Your task to perform on an android device: turn on translation in the chrome app Image 0: 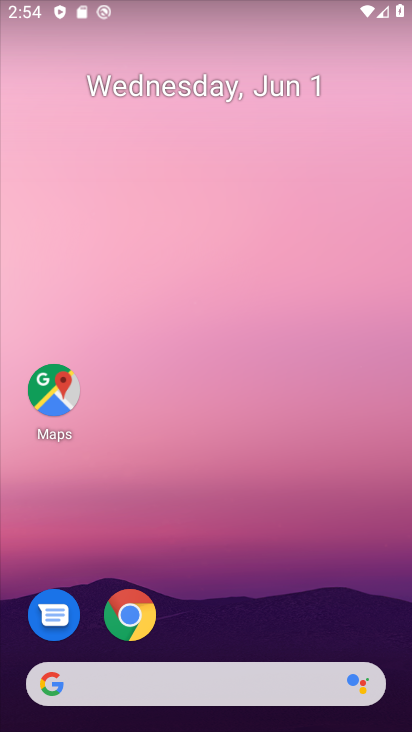
Step 0: drag from (295, 637) to (319, 27)
Your task to perform on an android device: turn on translation in the chrome app Image 1: 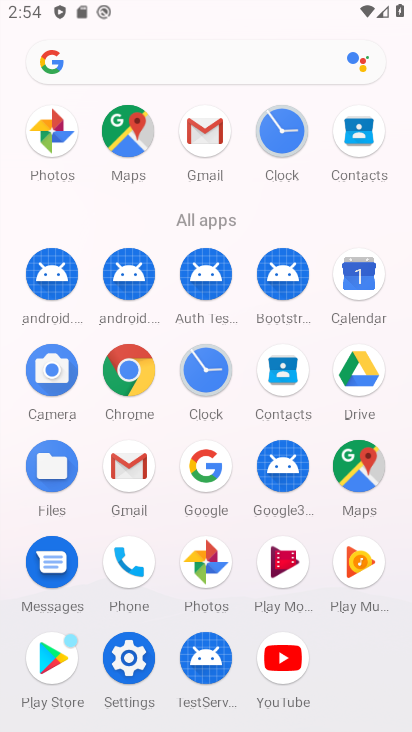
Step 1: click (135, 371)
Your task to perform on an android device: turn on translation in the chrome app Image 2: 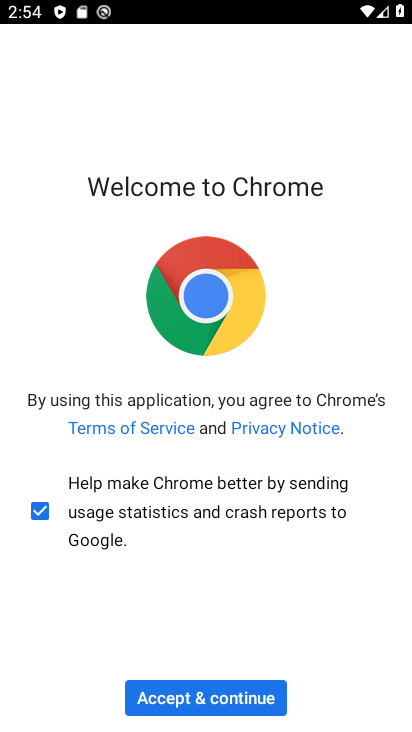
Step 2: click (217, 707)
Your task to perform on an android device: turn on translation in the chrome app Image 3: 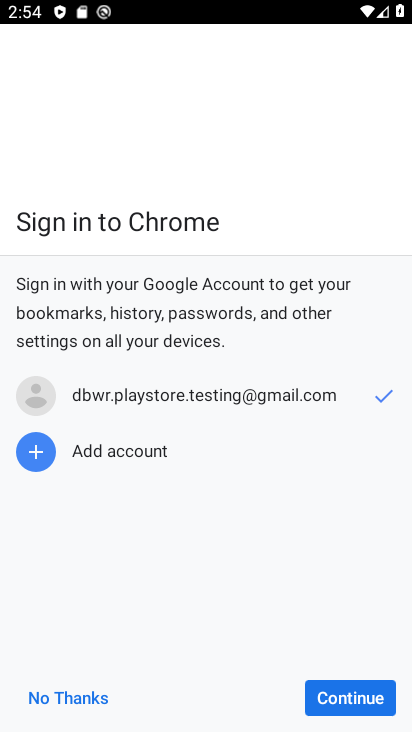
Step 3: click (86, 696)
Your task to perform on an android device: turn on translation in the chrome app Image 4: 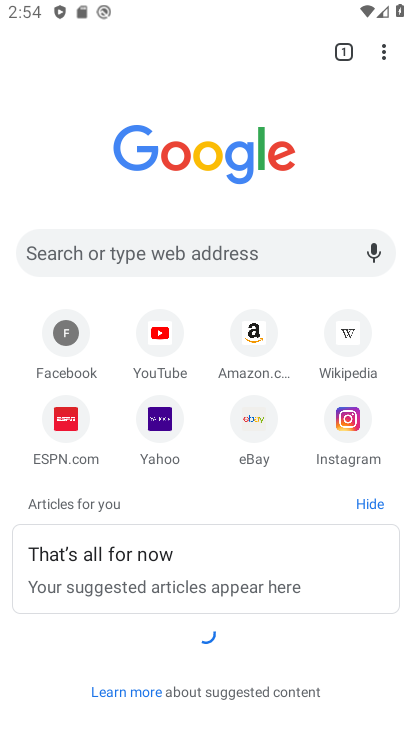
Step 4: drag from (380, 61) to (312, 452)
Your task to perform on an android device: turn on translation in the chrome app Image 5: 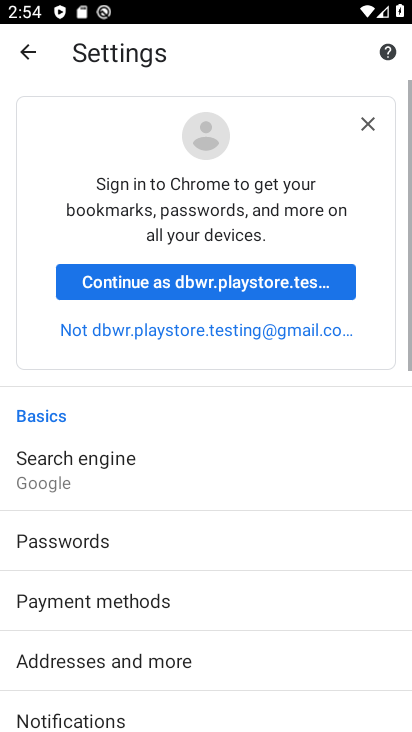
Step 5: drag from (247, 590) to (284, 95)
Your task to perform on an android device: turn on translation in the chrome app Image 6: 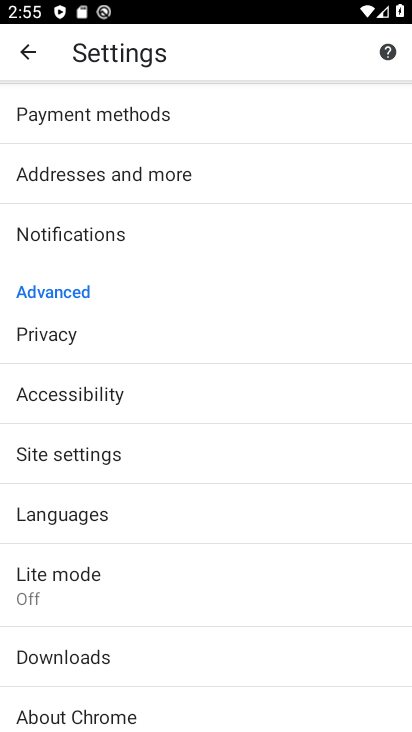
Step 6: click (107, 530)
Your task to perform on an android device: turn on translation in the chrome app Image 7: 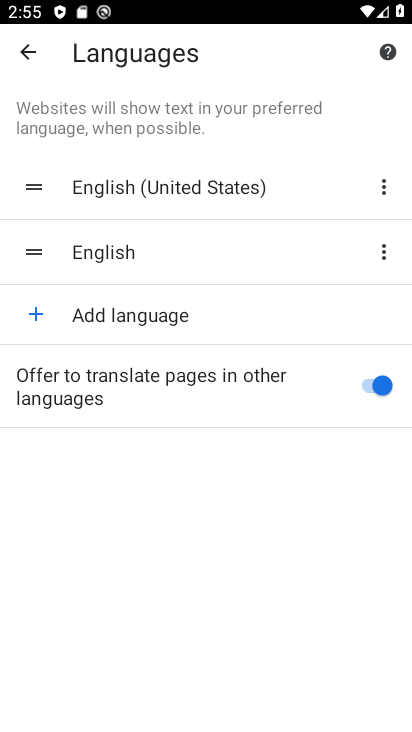
Step 7: task complete